Your task to perform on an android device: set default search engine in the chrome app Image 0: 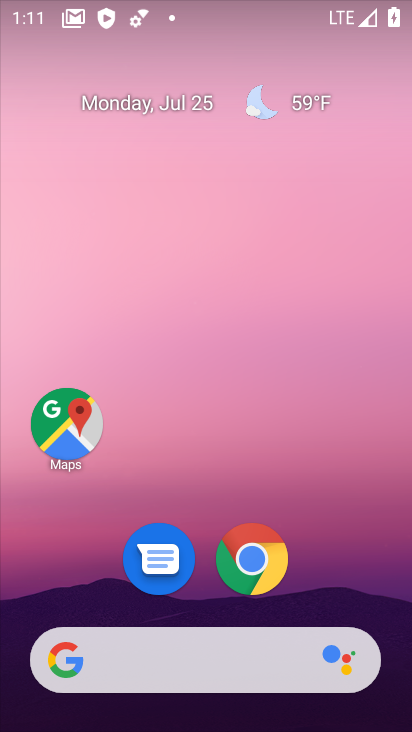
Step 0: click (246, 556)
Your task to perform on an android device: set default search engine in the chrome app Image 1: 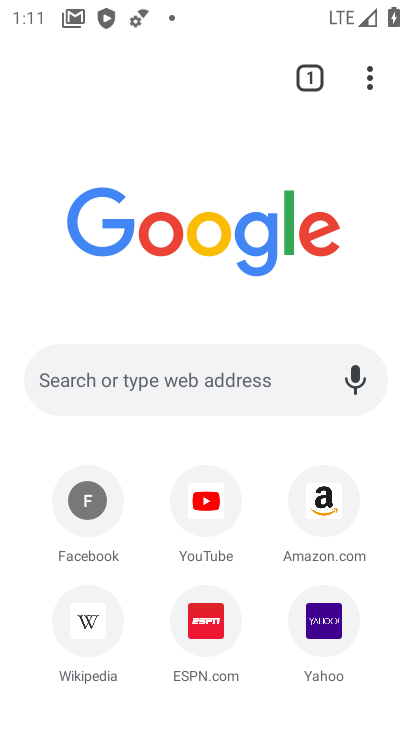
Step 1: click (374, 73)
Your task to perform on an android device: set default search engine in the chrome app Image 2: 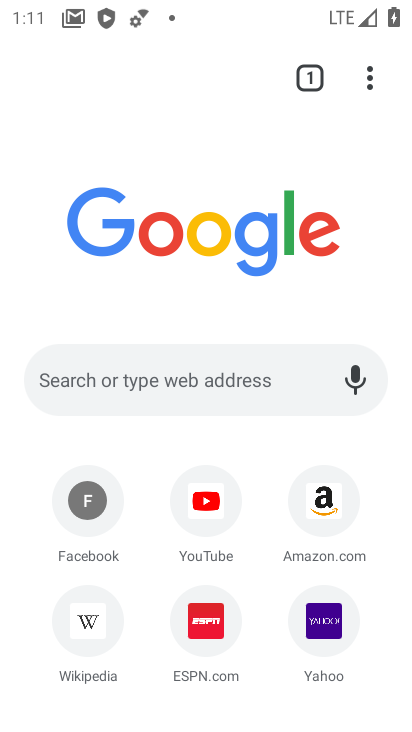
Step 2: drag from (374, 73) to (97, 612)
Your task to perform on an android device: set default search engine in the chrome app Image 3: 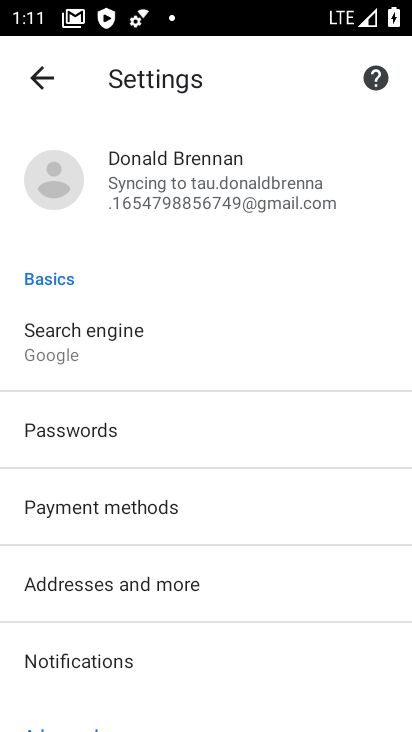
Step 3: drag from (122, 656) to (157, 731)
Your task to perform on an android device: set default search engine in the chrome app Image 4: 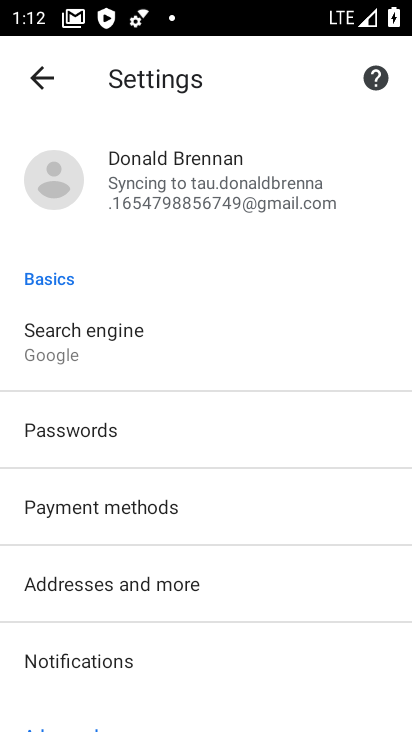
Step 4: click (106, 335)
Your task to perform on an android device: set default search engine in the chrome app Image 5: 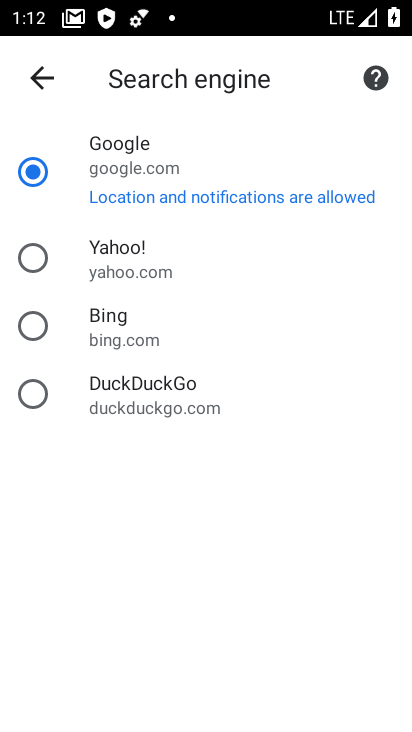
Step 5: click (79, 290)
Your task to perform on an android device: set default search engine in the chrome app Image 6: 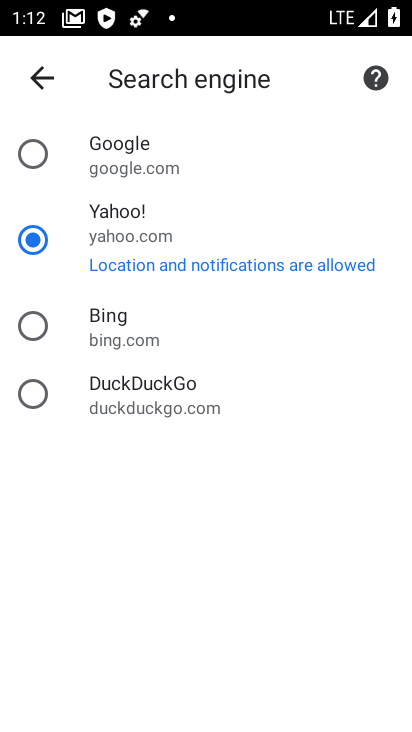
Step 6: task complete